Your task to perform on an android device: Open Amazon Image 0: 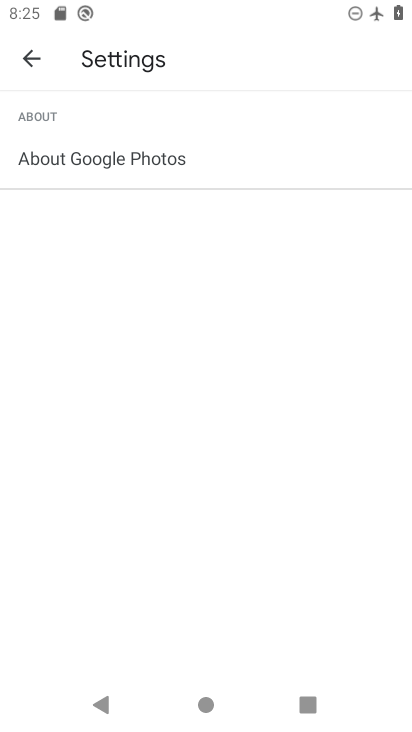
Step 0: press home button
Your task to perform on an android device: Open Amazon Image 1: 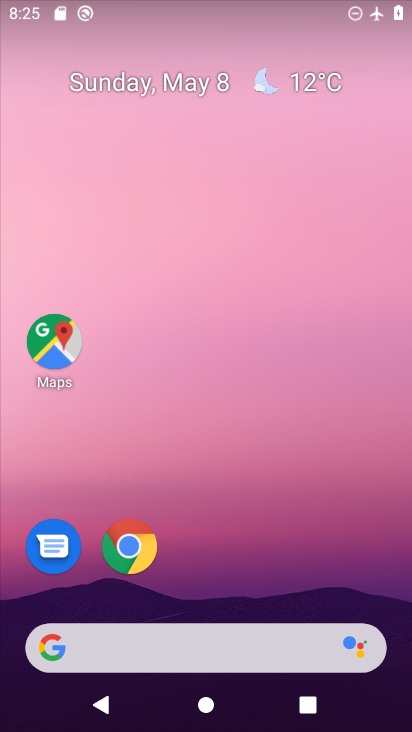
Step 1: drag from (269, 529) to (219, 91)
Your task to perform on an android device: Open Amazon Image 2: 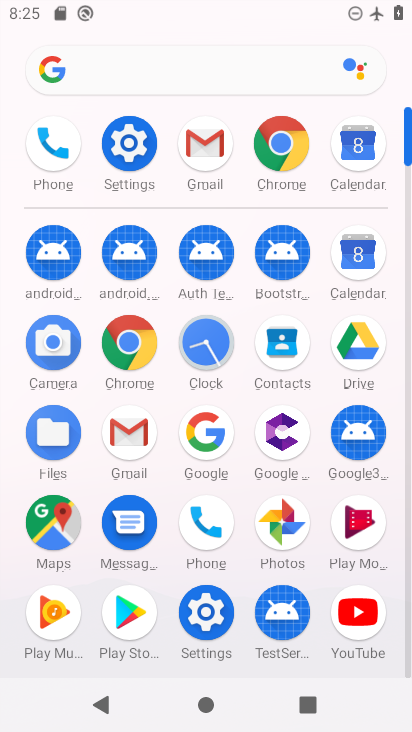
Step 2: click (279, 138)
Your task to perform on an android device: Open Amazon Image 3: 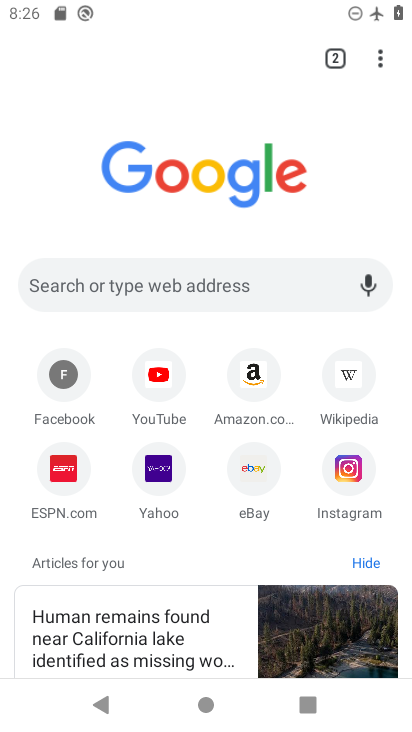
Step 3: click (232, 377)
Your task to perform on an android device: Open Amazon Image 4: 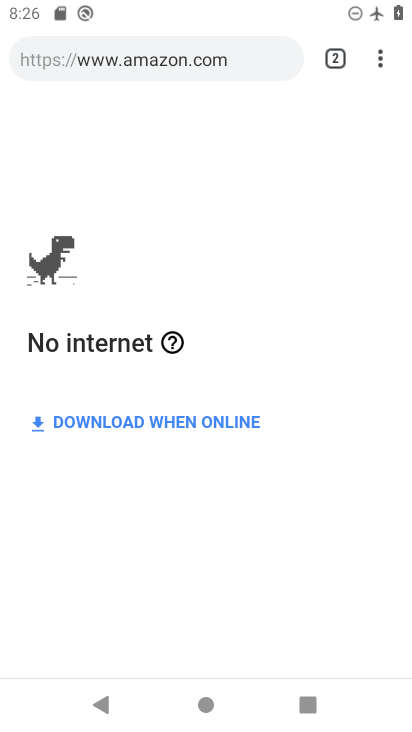
Step 4: task complete